Your task to perform on an android device: Turn on the flashlight Image 0: 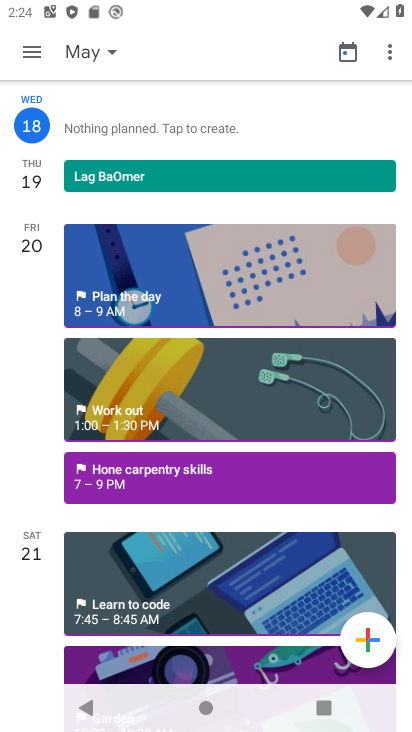
Step 0: click (36, 51)
Your task to perform on an android device: Turn on the flashlight Image 1: 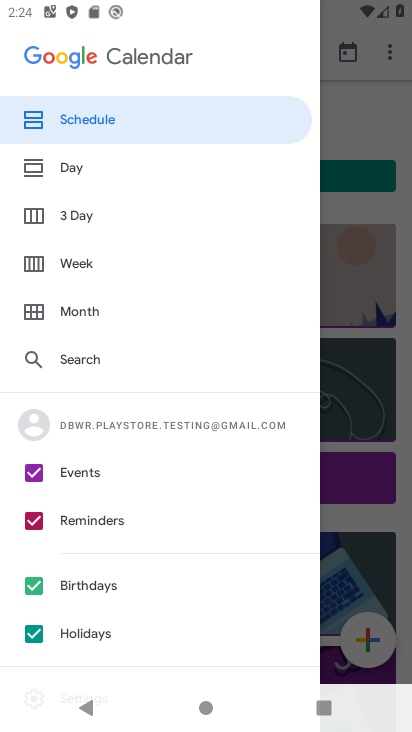
Step 1: press home button
Your task to perform on an android device: Turn on the flashlight Image 2: 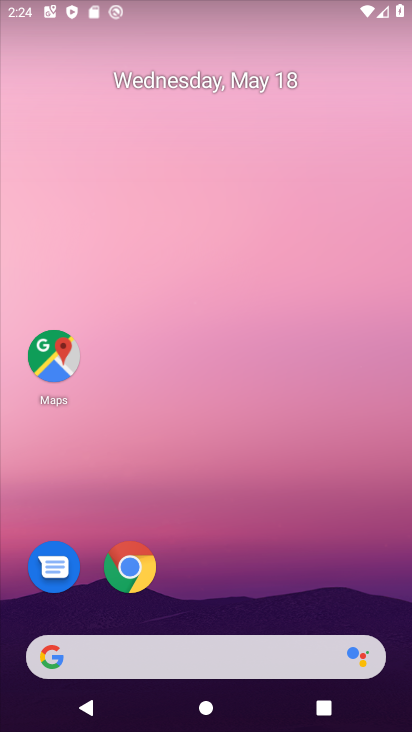
Step 2: drag from (189, 598) to (218, 148)
Your task to perform on an android device: Turn on the flashlight Image 3: 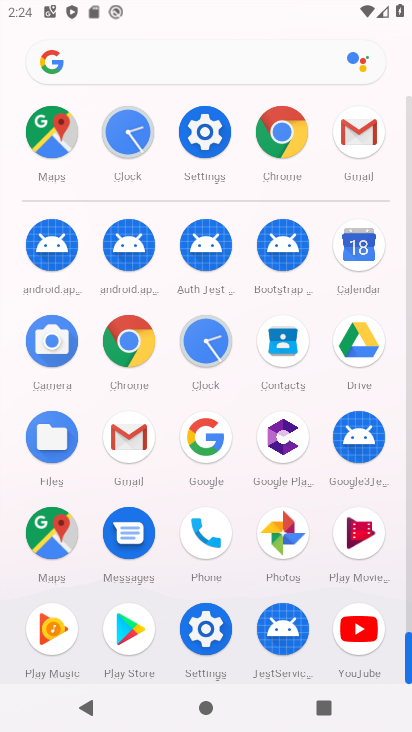
Step 3: click (198, 122)
Your task to perform on an android device: Turn on the flashlight Image 4: 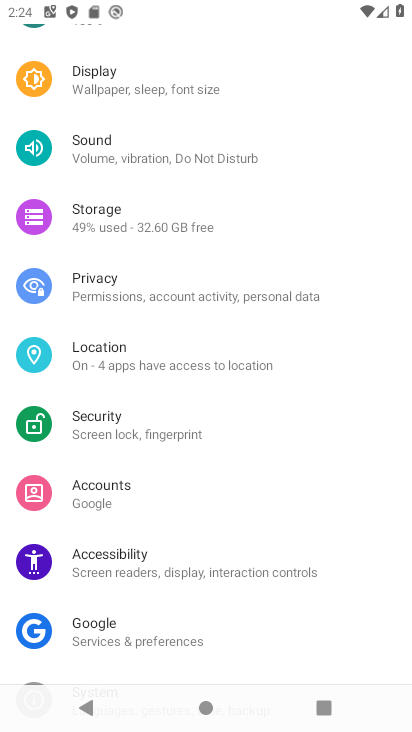
Step 4: task complete